Your task to perform on an android device: change the clock display to digital Image 0: 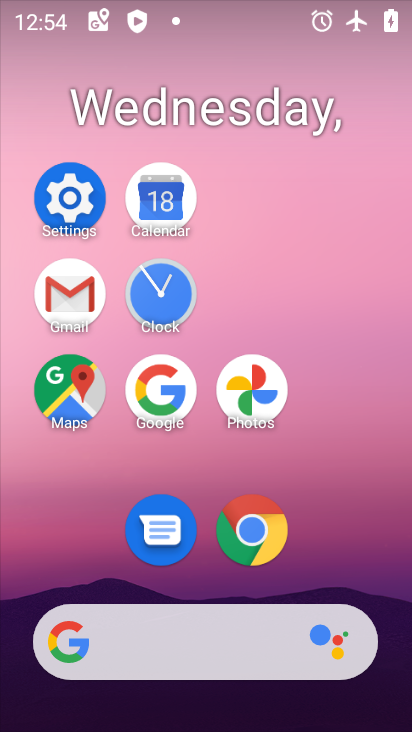
Step 0: click (152, 304)
Your task to perform on an android device: change the clock display to digital Image 1: 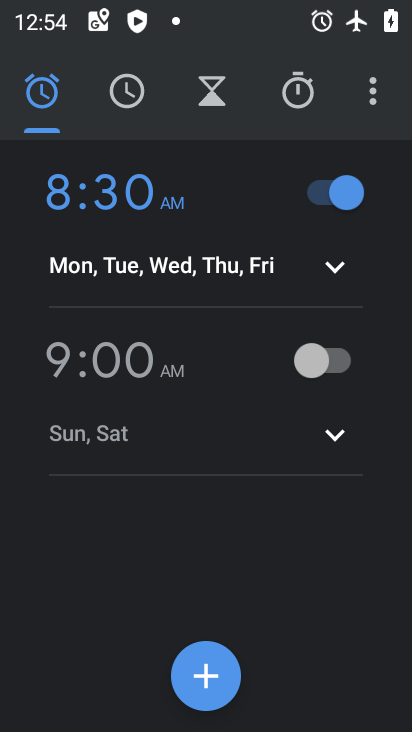
Step 1: click (347, 81)
Your task to perform on an android device: change the clock display to digital Image 2: 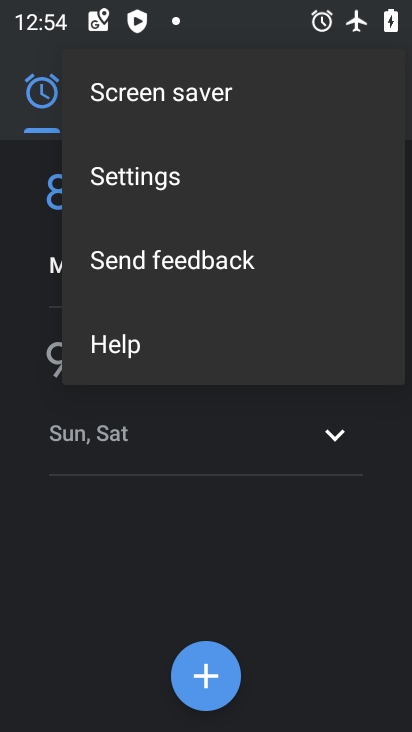
Step 2: click (283, 197)
Your task to perform on an android device: change the clock display to digital Image 3: 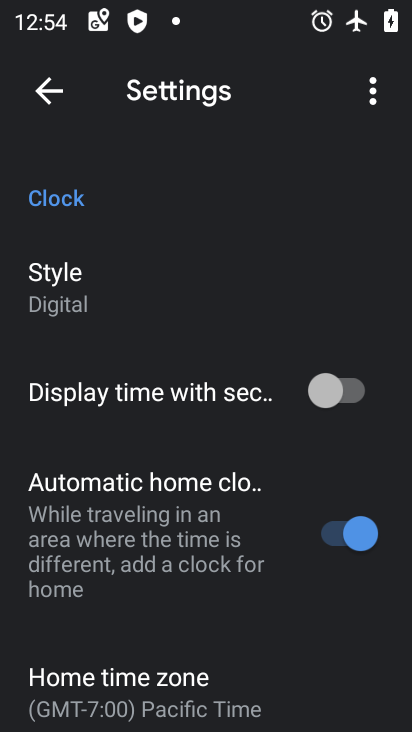
Step 3: task complete